Your task to perform on an android device: Search for top rated burger restaurants on Maps Image 0: 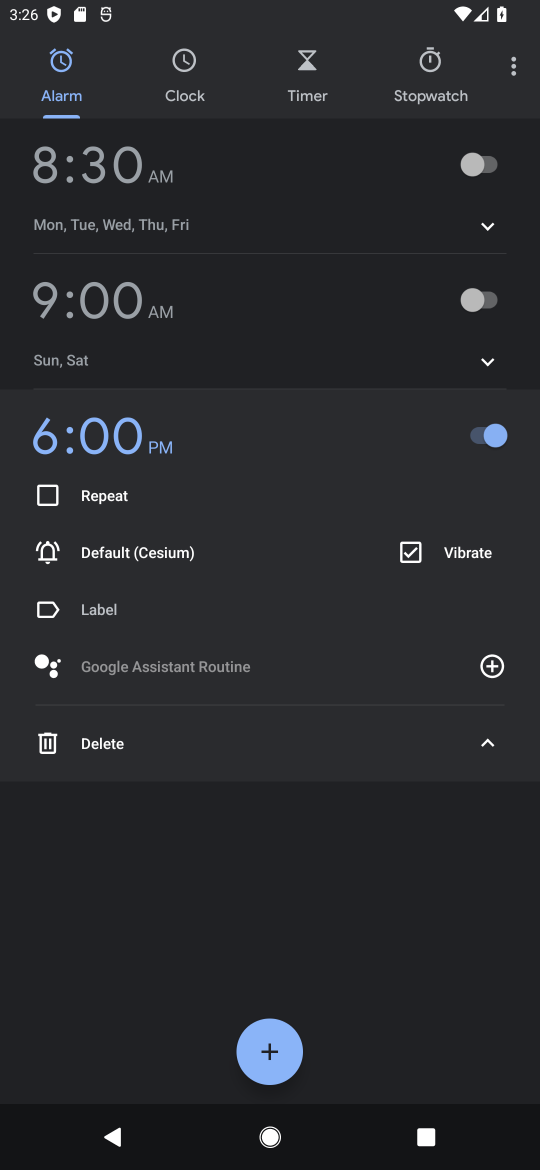
Step 0: press home button
Your task to perform on an android device: Search for top rated burger restaurants on Maps Image 1: 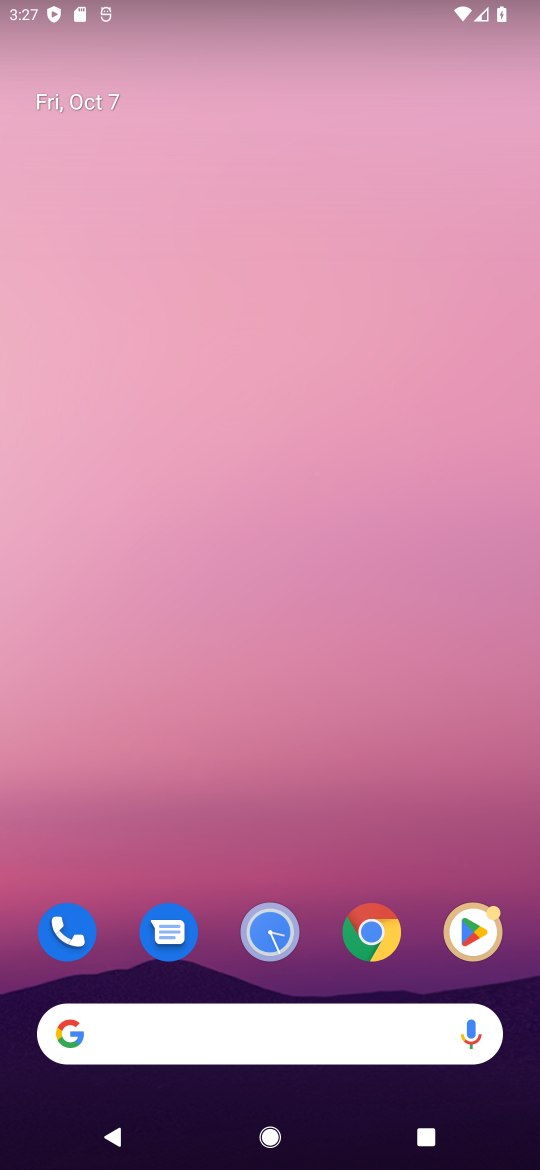
Step 1: drag from (231, 986) to (202, 130)
Your task to perform on an android device: Search for top rated burger restaurants on Maps Image 2: 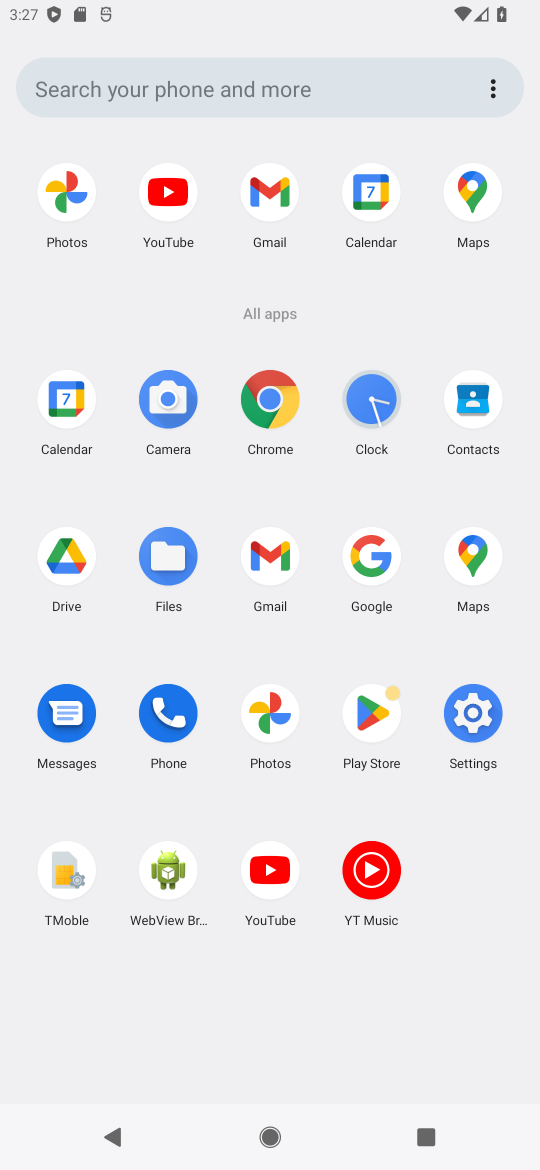
Step 2: click (476, 190)
Your task to perform on an android device: Search for top rated burger restaurants on Maps Image 3: 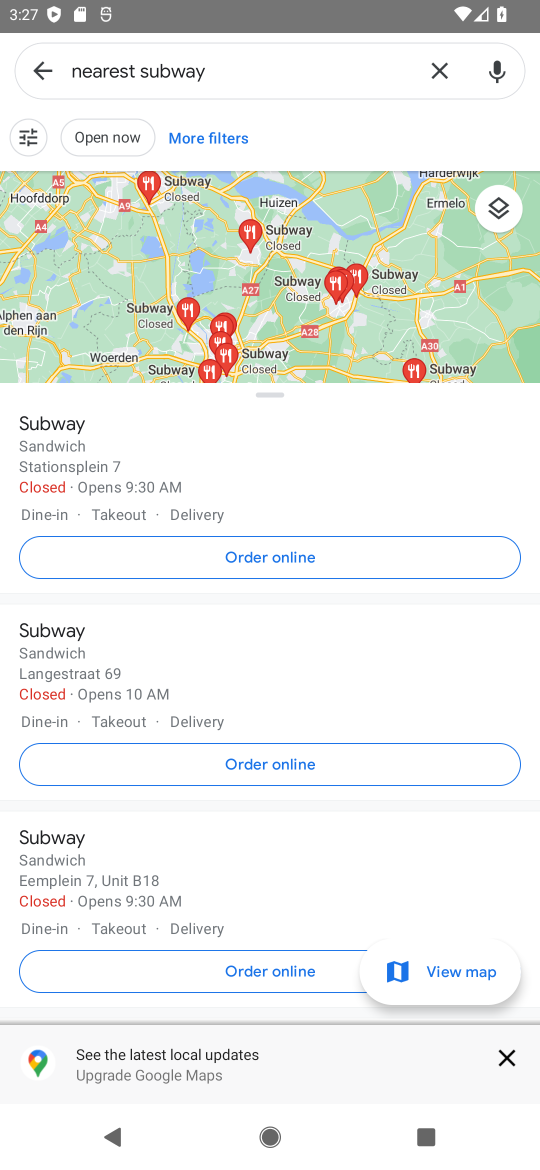
Step 3: click (428, 79)
Your task to perform on an android device: Search for top rated burger restaurants on Maps Image 4: 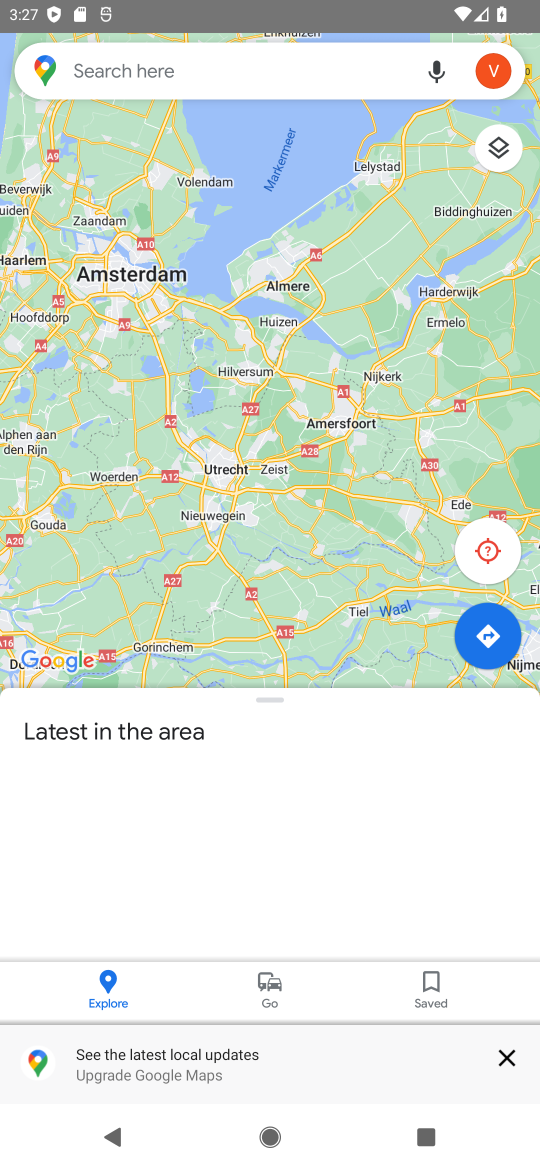
Step 4: click (307, 83)
Your task to perform on an android device: Search for top rated burger restaurants on Maps Image 5: 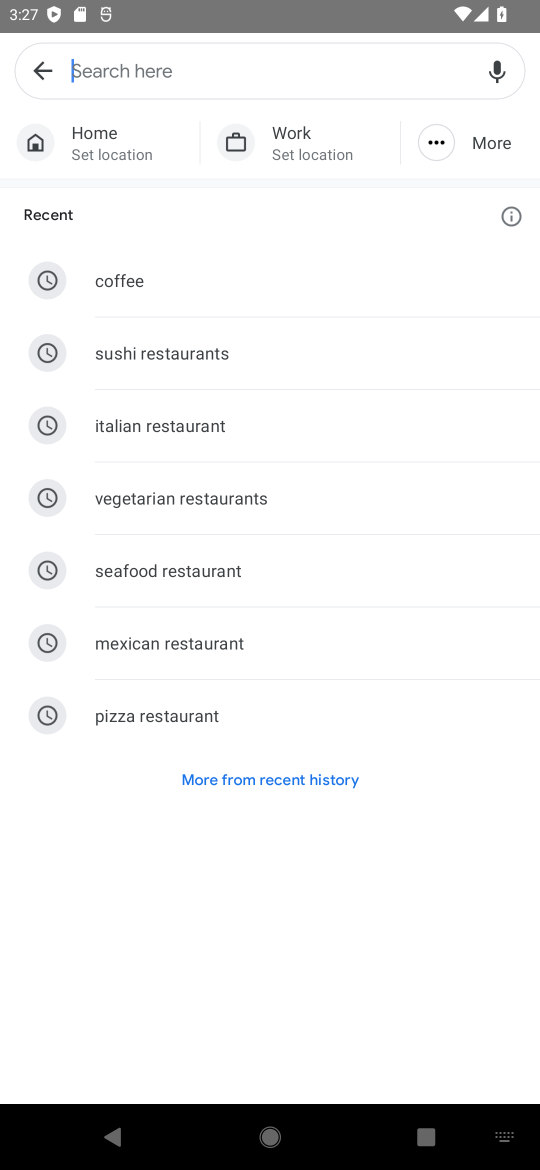
Step 5: type "top rated burger restaurants"
Your task to perform on an android device: Search for top rated burger restaurants on Maps Image 6: 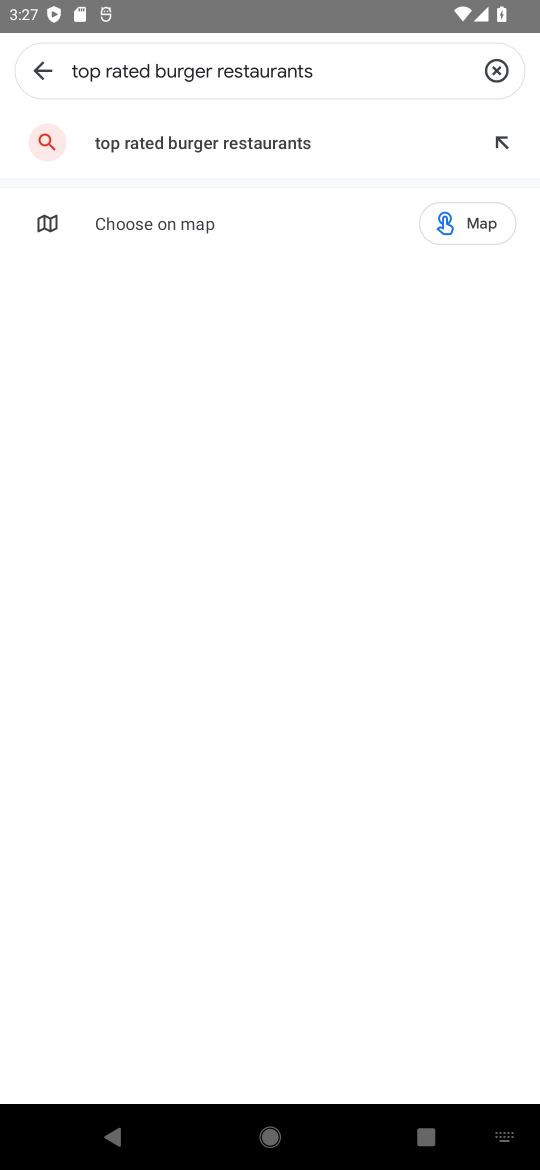
Step 6: click (205, 138)
Your task to perform on an android device: Search for top rated burger restaurants on Maps Image 7: 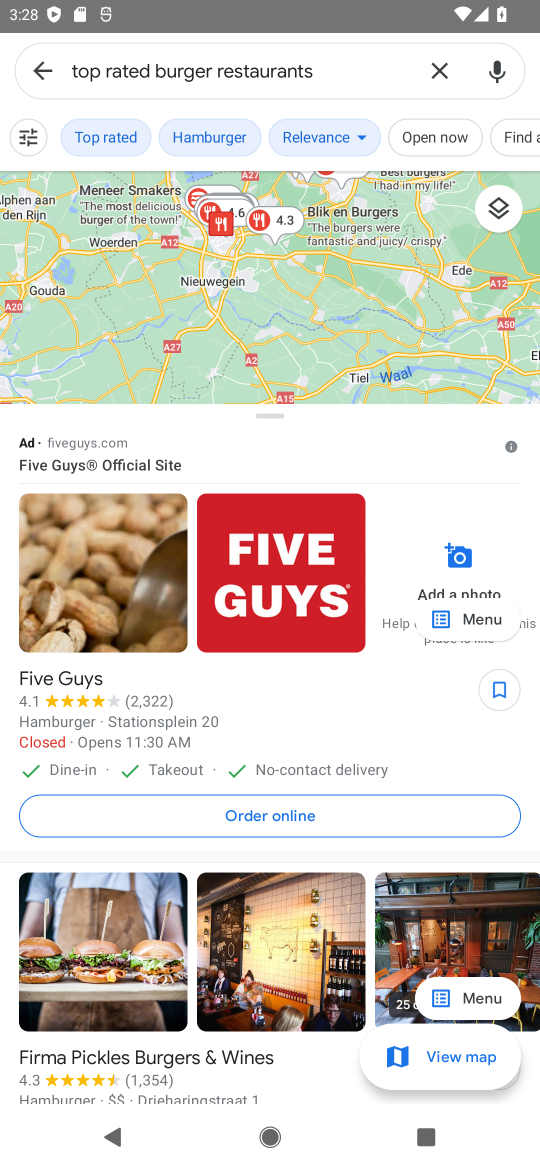
Step 7: task complete